Your task to perform on an android device: Open Android settings Image 0: 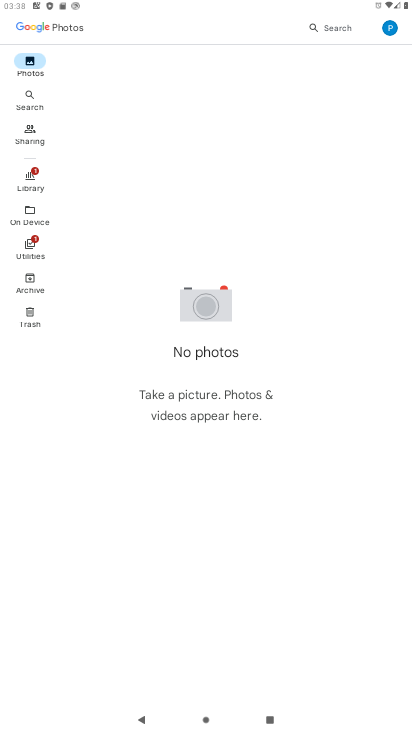
Step 0: press home button
Your task to perform on an android device: Open Android settings Image 1: 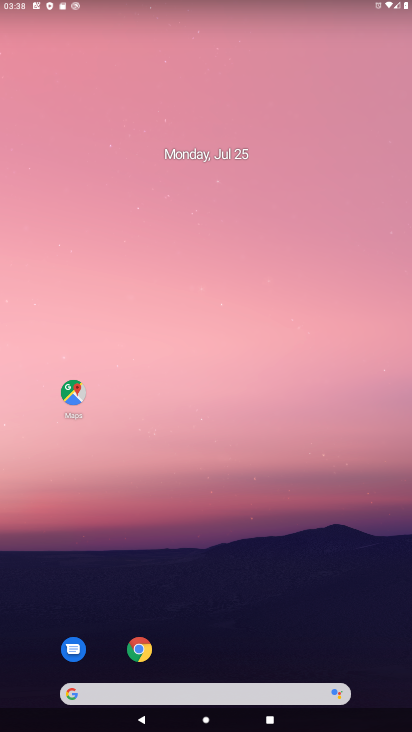
Step 1: drag from (370, 621) to (311, 206)
Your task to perform on an android device: Open Android settings Image 2: 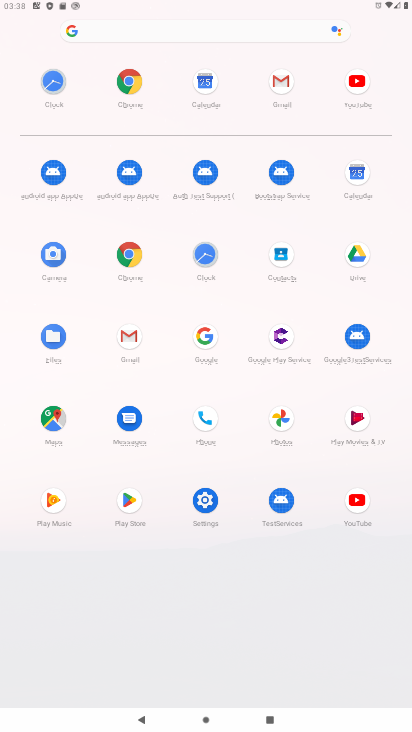
Step 2: click (206, 501)
Your task to perform on an android device: Open Android settings Image 3: 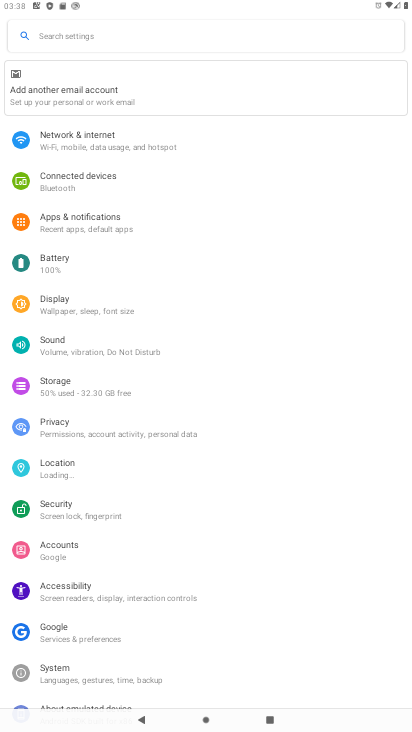
Step 3: drag from (248, 610) to (276, 288)
Your task to perform on an android device: Open Android settings Image 4: 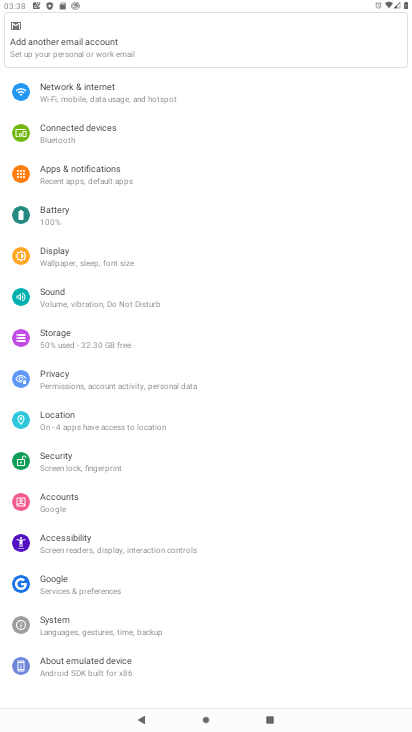
Step 4: click (62, 660)
Your task to perform on an android device: Open Android settings Image 5: 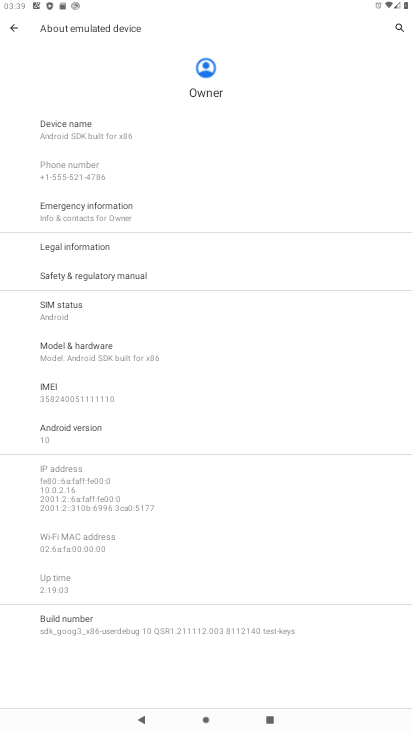
Step 5: task complete